Your task to perform on an android device: empty trash in the gmail app Image 0: 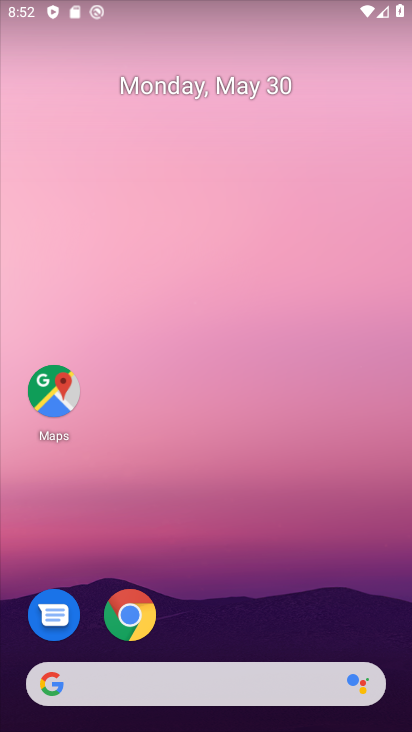
Step 0: drag from (294, 565) to (294, 62)
Your task to perform on an android device: empty trash in the gmail app Image 1: 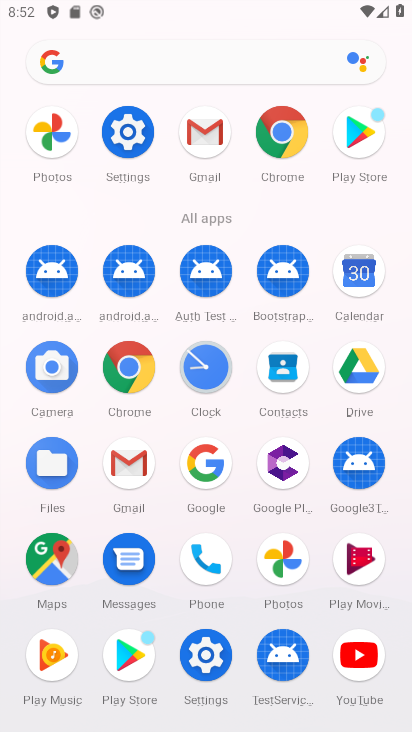
Step 1: click (141, 459)
Your task to perform on an android device: empty trash in the gmail app Image 2: 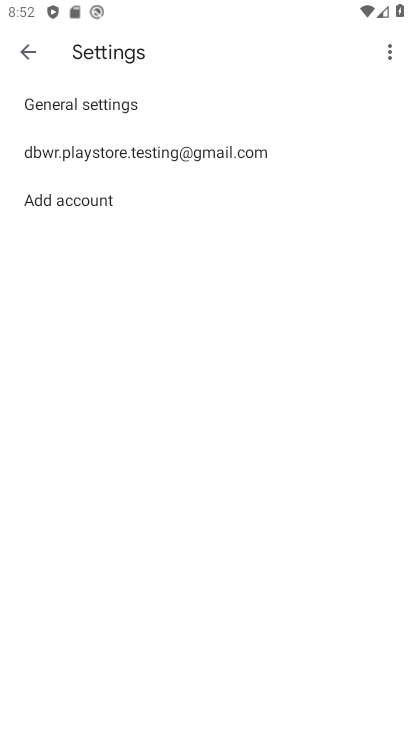
Step 2: click (29, 55)
Your task to perform on an android device: empty trash in the gmail app Image 3: 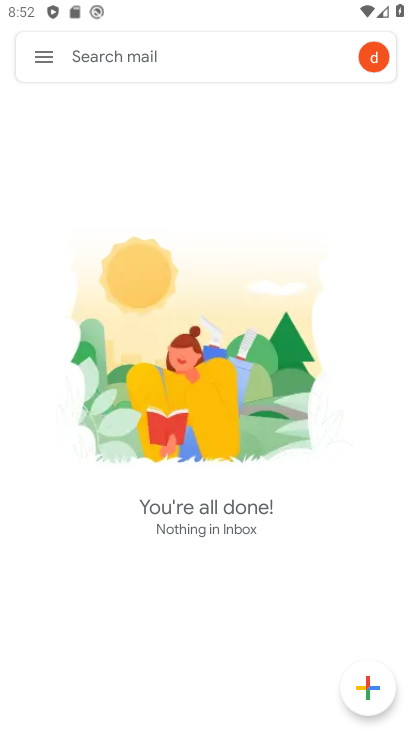
Step 3: click (38, 55)
Your task to perform on an android device: empty trash in the gmail app Image 4: 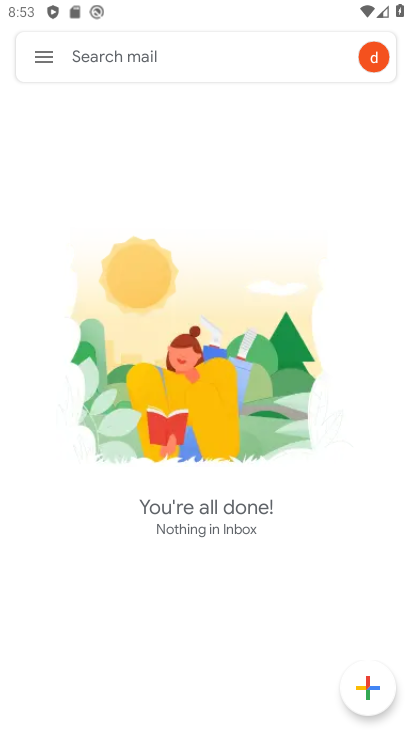
Step 4: click (48, 55)
Your task to perform on an android device: empty trash in the gmail app Image 5: 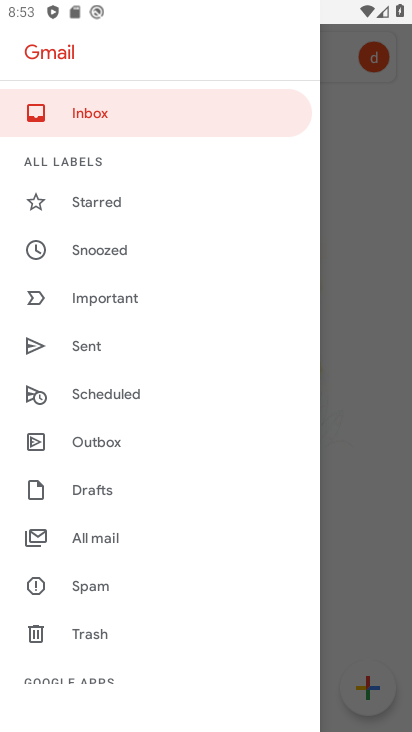
Step 5: click (119, 622)
Your task to perform on an android device: empty trash in the gmail app Image 6: 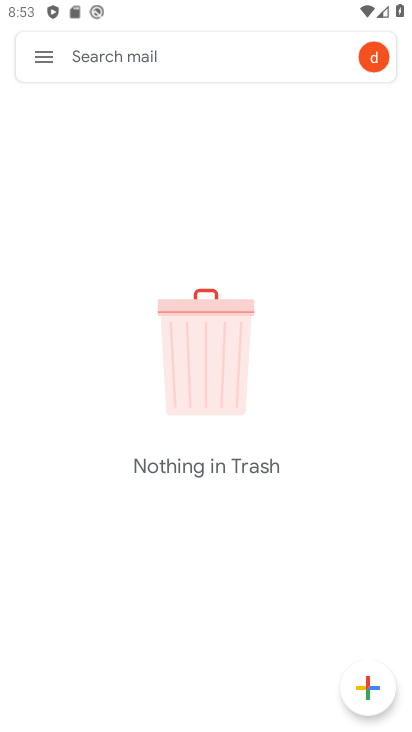
Step 6: click (40, 56)
Your task to perform on an android device: empty trash in the gmail app Image 7: 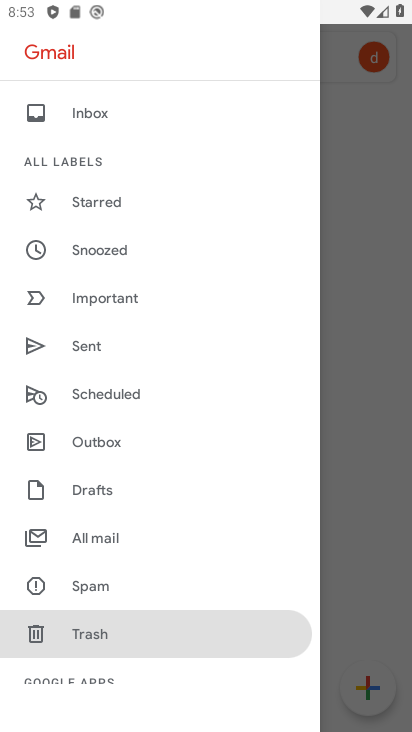
Step 7: task complete